Your task to perform on an android device: Show me popular games on the Play Store Image 0: 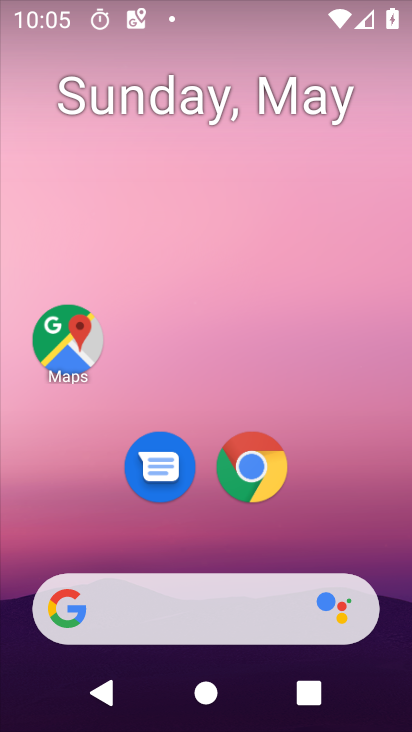
Step 0: drag from (221, 549) to (205, 203)
Your task to perform on an android device: Show me popular games on the Play Store Image 1: 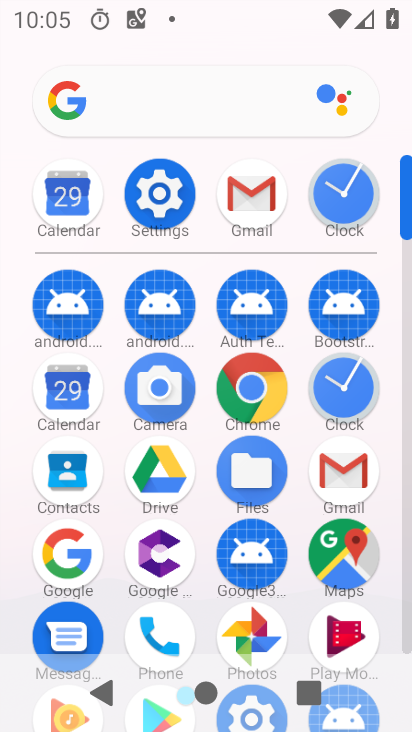
Step 1: drag from (121, 596) to (112, 243)
Your task to perform on an android device: Show me popular games on the Play Store Image 2: 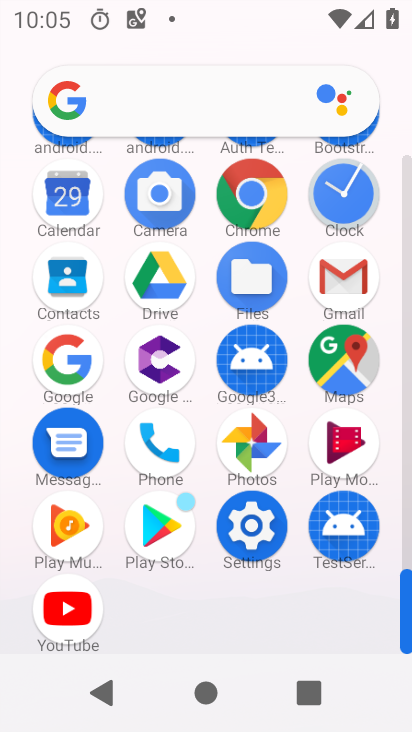
Step 2: click (158, 505)
Your task to perform on an android device: Show me popular games on the Play Store Image 3: 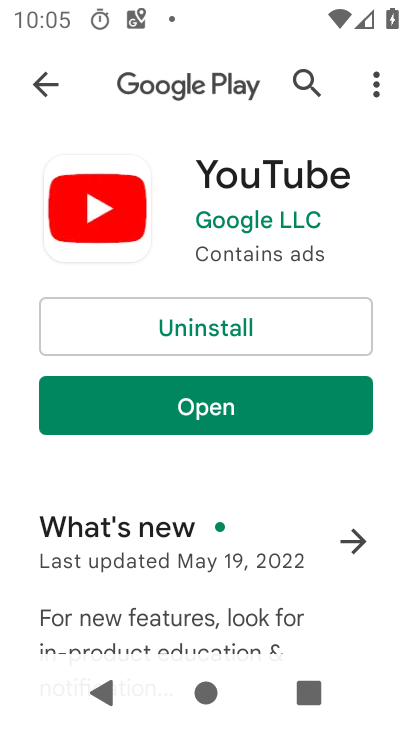
Step 3: click (51, 91)
Your task to perform on an android device: Show me popular games on the Play Store Image 4: 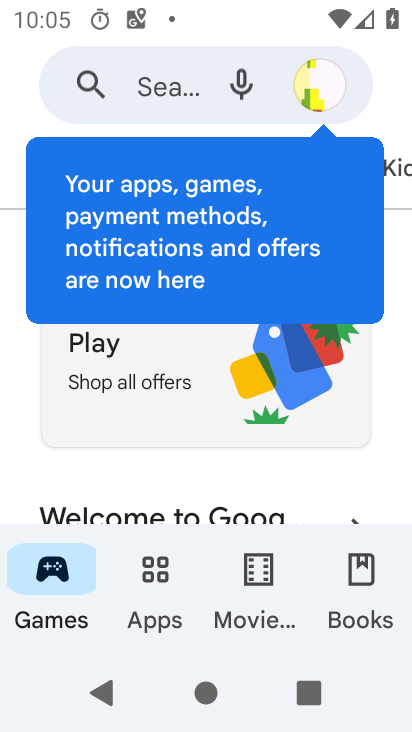
Step 4: click (229, 245)
Your task to perform on an android device: Show me popular games on the Play Store Image 5: 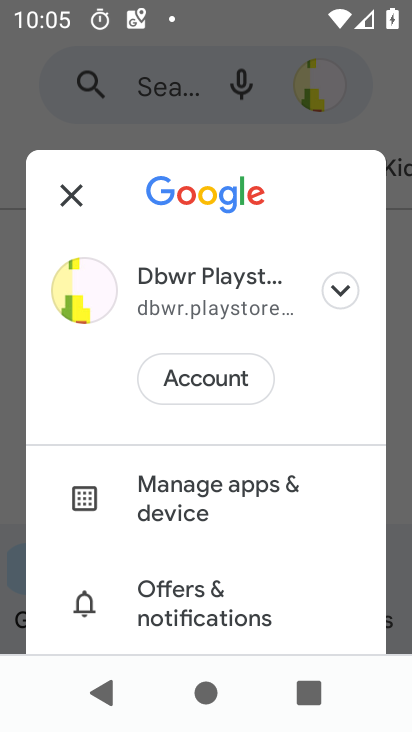
Step 5: click (73, 194)
Your task to perform on an android device: Show me popular games on the Play Store Image 6: 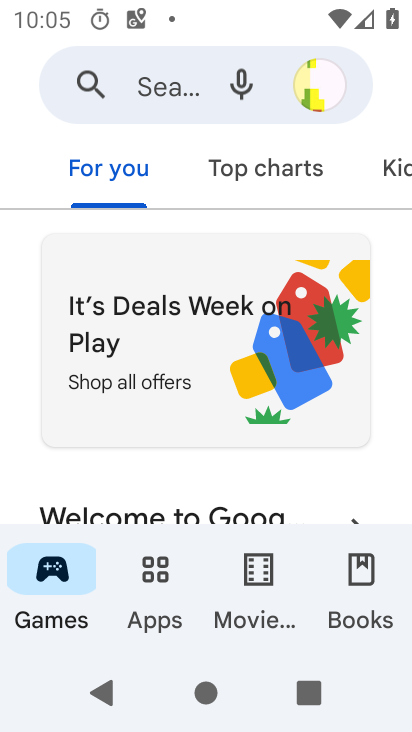
Step 6: click (210, 165)
Your task to perform on an android device: Show me popular games on the Play Store Image 7: 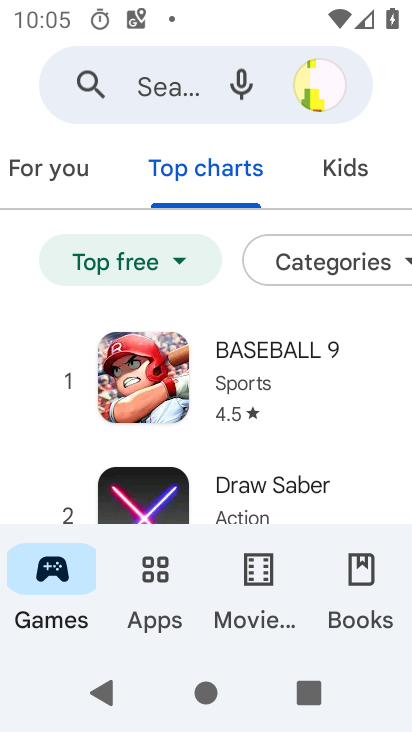
Step 7: task complete